Your task to perform on an android device: turn off javascript in the chrome app Image 0: 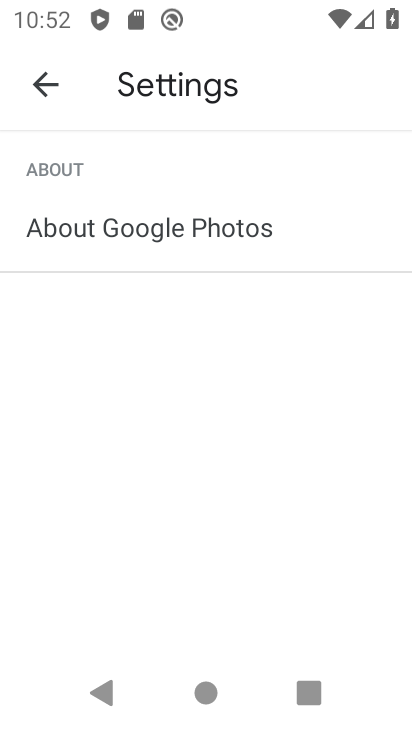
Step 0: press home button
Your task to perform on an android device: turn off javascript in the chrome app Image 1: 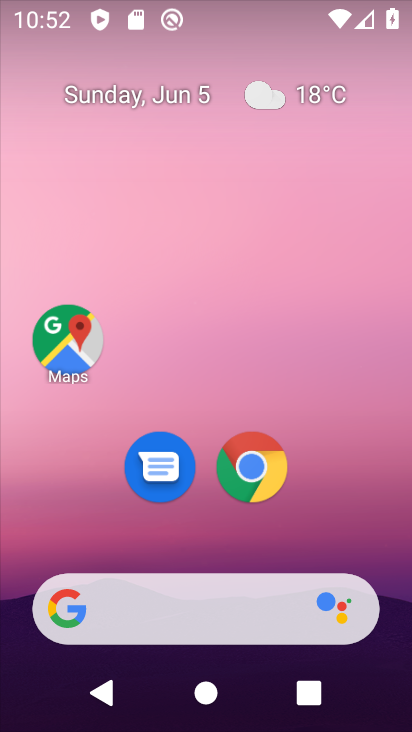
Step 1: click (229, 503)
Your task to perform on an android device: turn off javascript in the chrome app Image 2: 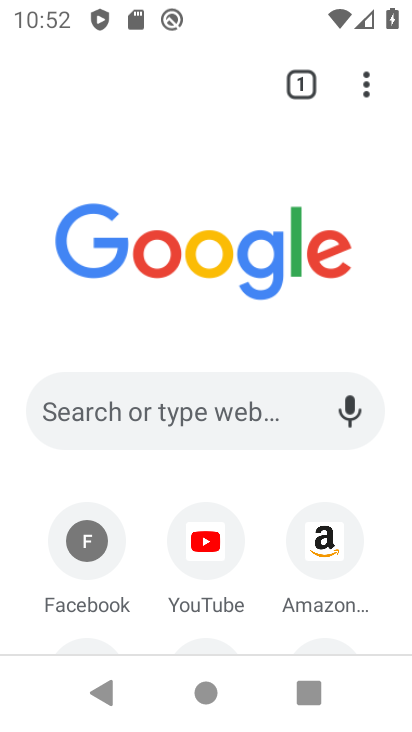
Step 2: click (372, 86)
Your task to perform on an android device: turn off javascript in the chrome app Image 3: 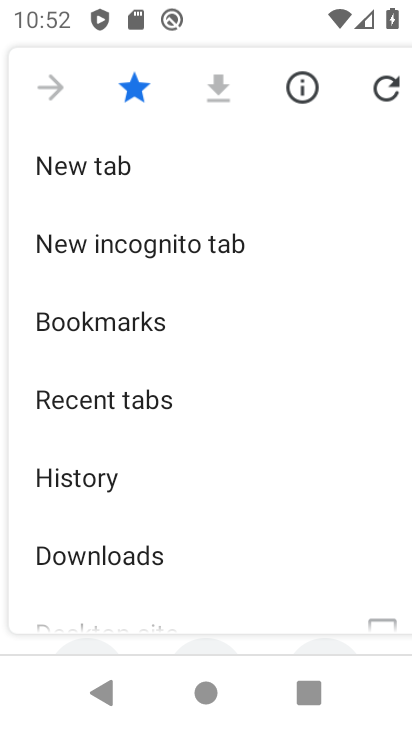
Step 3: drag from (125, 537) to (102, 234)
Your task to perform on an android device: turn off javascript in the chrome app Image 4: 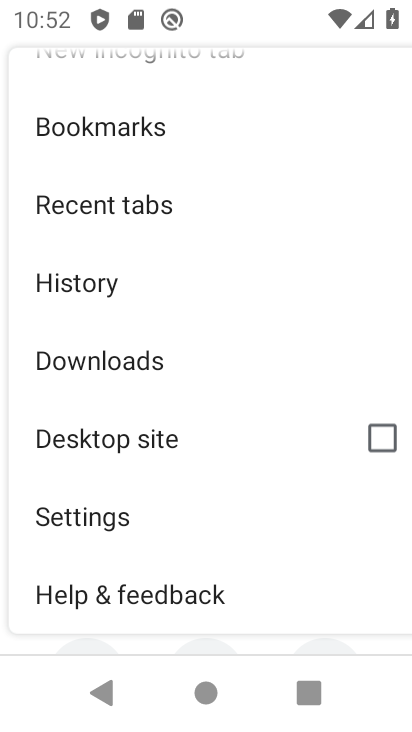
Step 4: click (73, 497)
Your task to perform on an android device: turn off javascript in the chrome app Image 5: 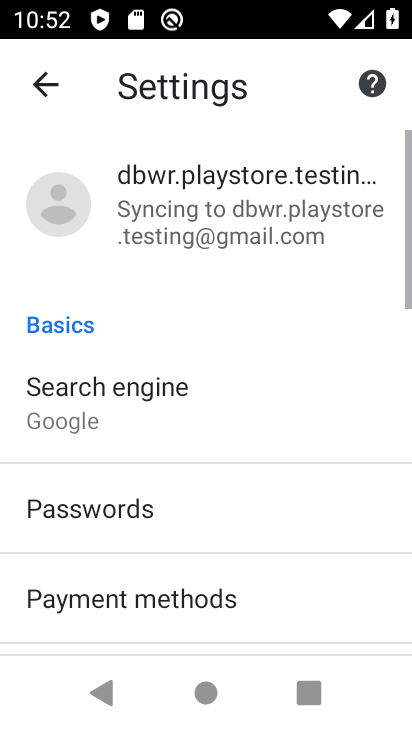
Step 5: drag from (73, 497) to (5, 79)
Your task to perform on an android device: turn off javascript in the chrome app Image 6: 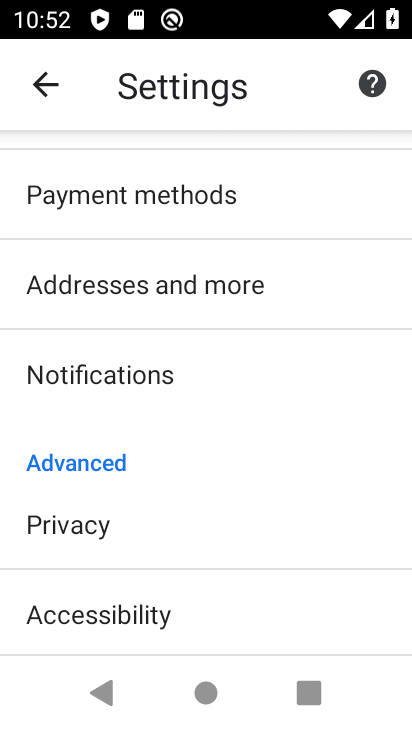
Step 6: drag from (148, 486) to (160, 233)
Your task to perform on an android device: turn off javascript in the chrome app Image 7: 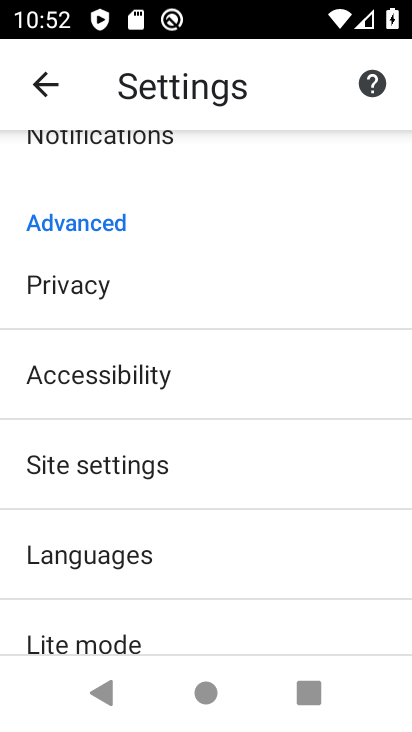
Step 7: click (135, 458)
Your task to perform on an android device: turn off javascript in the chrome app Image 8: 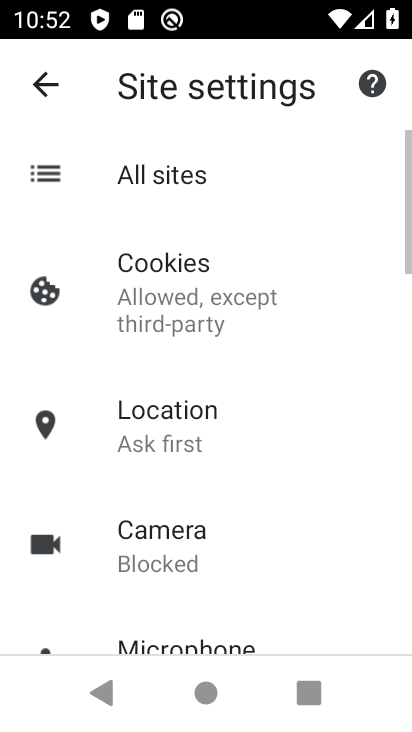
Step 8: drag from (145, 582) to (155, 122)
Your task to perform on an android device: turn off javascript in the chrome app Image 9: 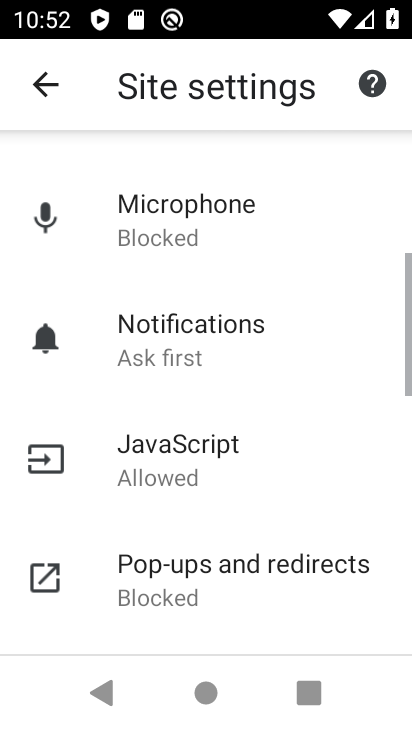
Step 9: click (190, 431)
Your task to perform on an android device: turn off javascript in the chrome app Image 10: 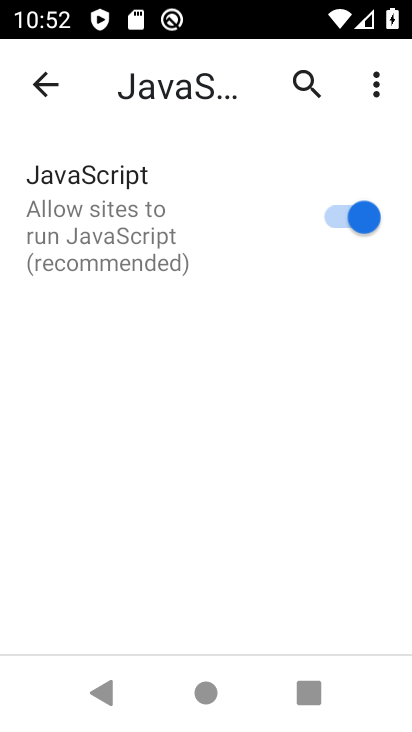
Step 10: click (333, 205)
Your task to perform on an android device: turn off javascript in the chrome app Image 11: 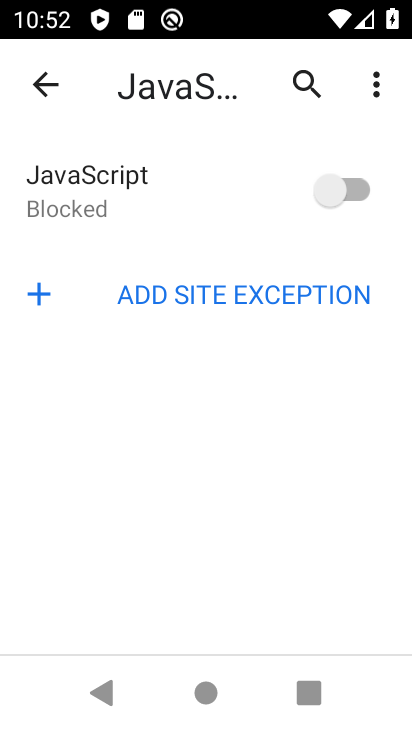
Step 11: task complete